Your task to perform on an android device: turn off smart reply in the gmail app Image 0: 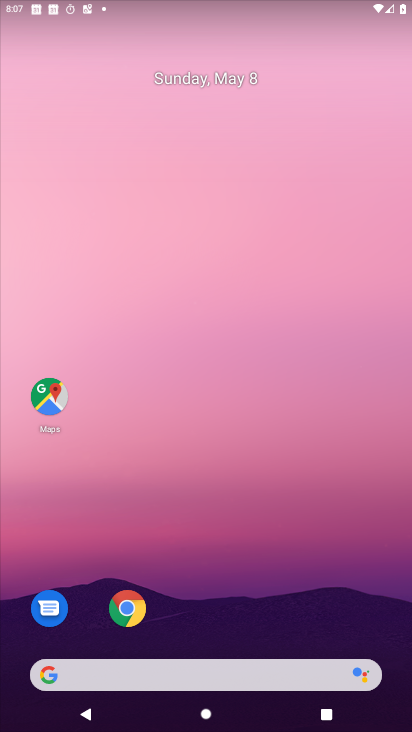
Step 0: drag from (226, 405) to (230, 44)
Your task to perform on an android device: turn off smart reply in the gmail app Image 1: 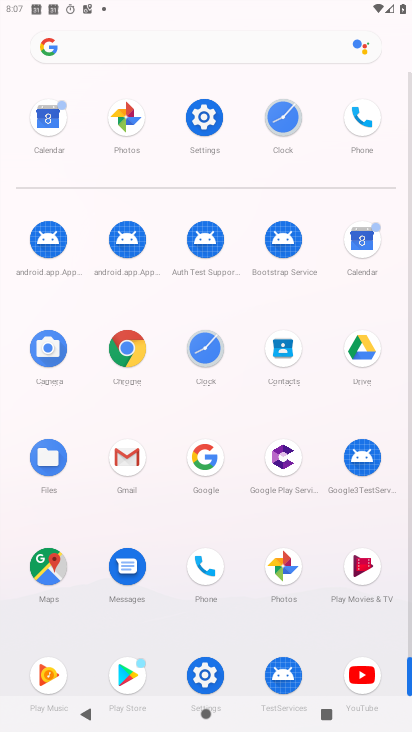
Step 1: click (120, 466)
Your task to perform on an android device: turn off smart reply in the gmail app Image 2: 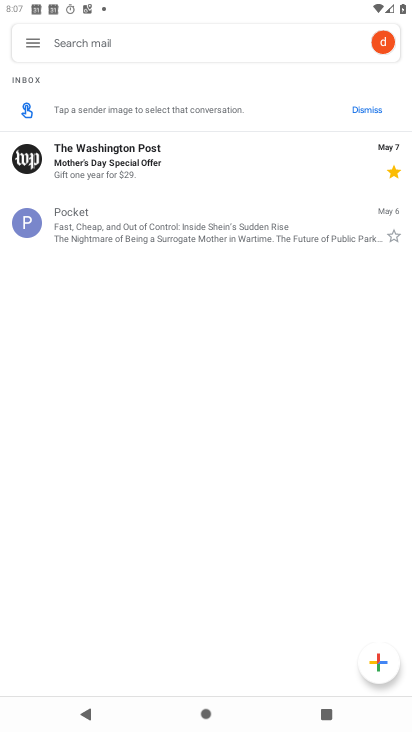
Step 2: click (33, 44)
Your task to perform on an android device: turn off smart reply in the gmail app Image 3: 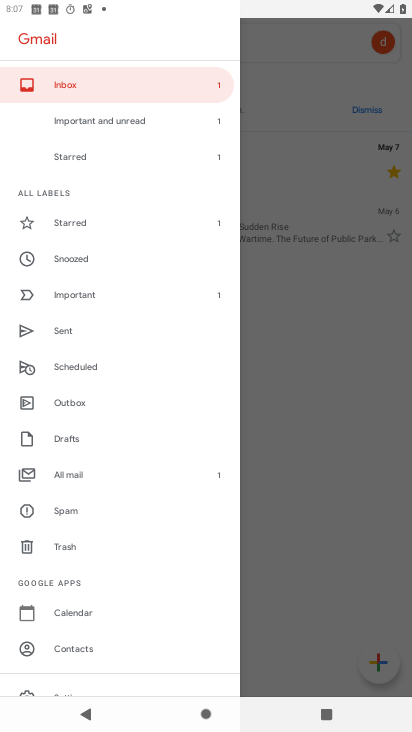
Step 3: drag from (125, 648) to (122, 529)
Your task to perform on an android device: turn off smart reply in the gmail app Image 4: 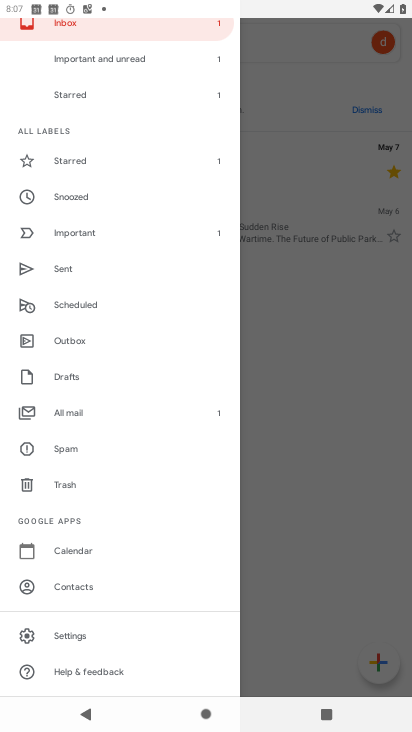
Step 4: click (65, 637)
Your task to perform on an android device: turn off smart reply in the gmail app Image 5: 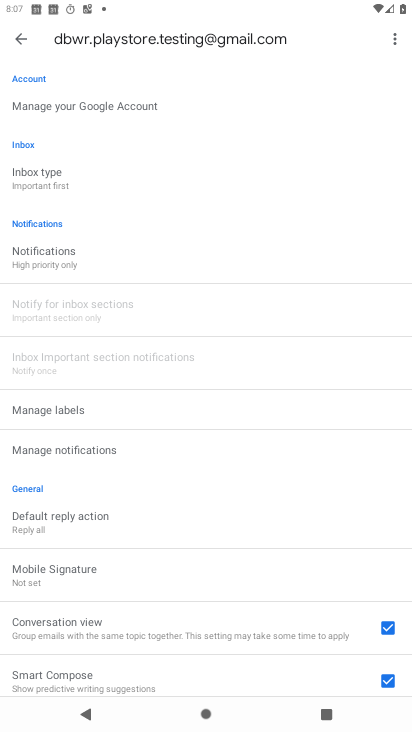
Step 5: drag from (222, 574) to (275, 197)
Your task to perform on an android device: turn off smart reply in the gmail app Image 6: 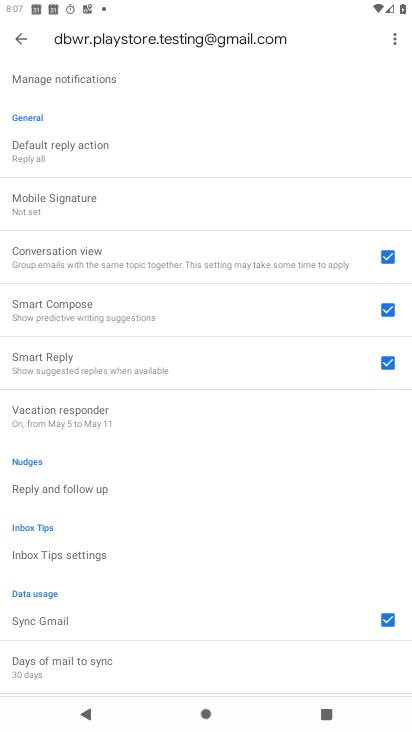
Step 6: click (380, 362)
Your task to perform on an android device: turn off smart reply in the gmail app Image 7: 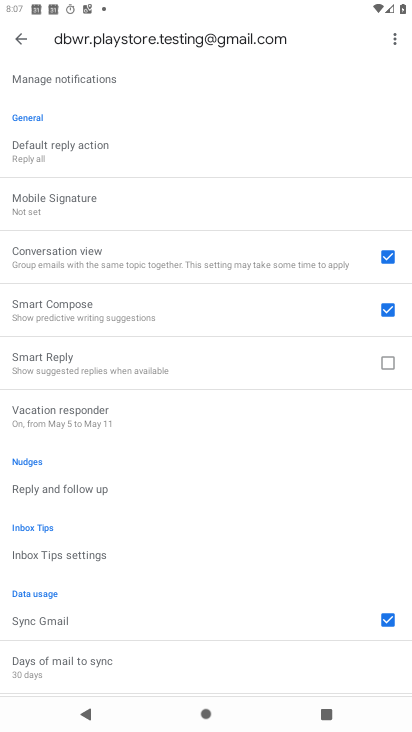
Step 7: task complete